Your task to perform on an android device: turn on javascript in the chrome app Image 0: 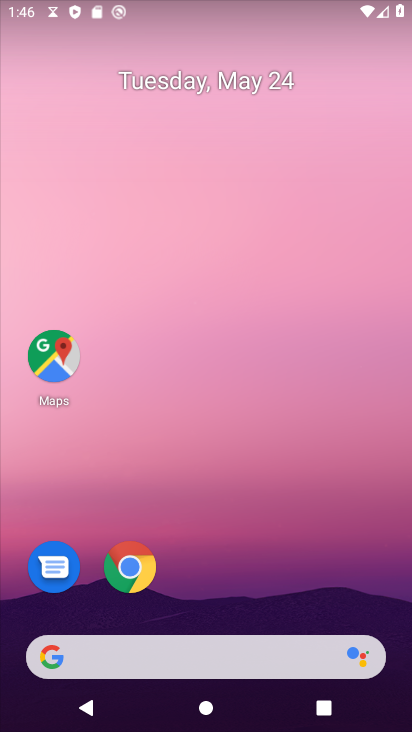
Step 0: drag from (223, 597) to (278, 93)
Your task to perform on an android device: turn on javascript in the chrome app Image 1: 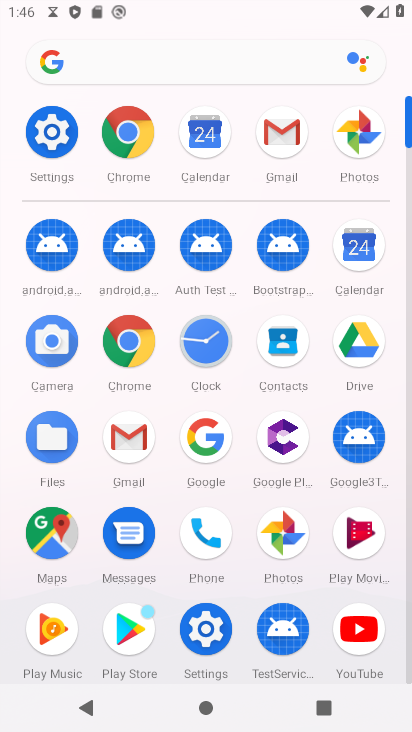
Step 1: click (122, 350)
Your task to perform on an android device: turn on javascript in the chrome app Image 2: 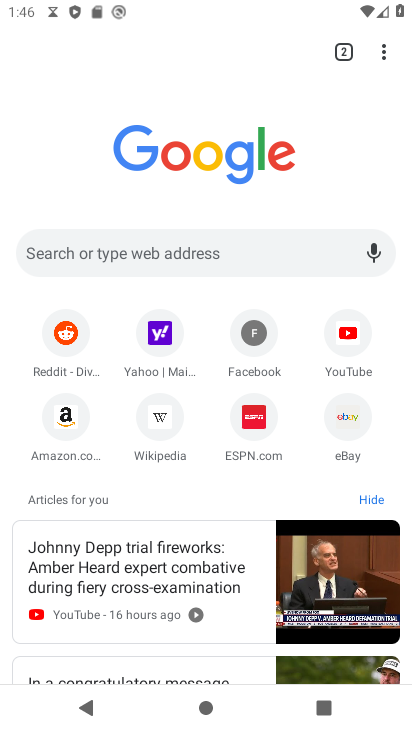
Step 2: click (379, 55)
Your task to perform on an android device: turn on javascript in the chrome app Image 3: 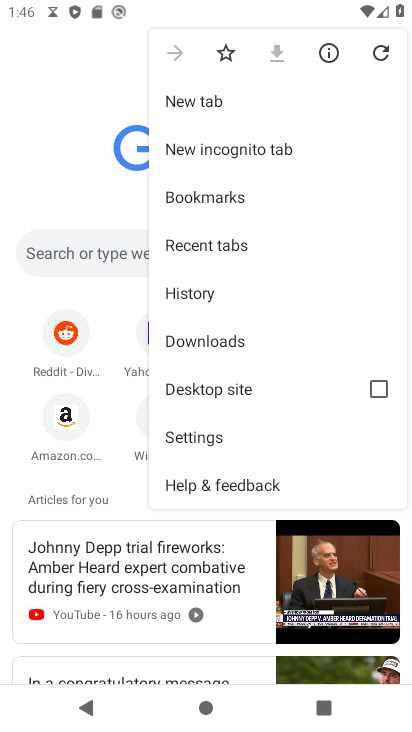
Step 3: click (185, 446)
Your task to perform on an android device: turn on javascript in the chrome app Image 4: 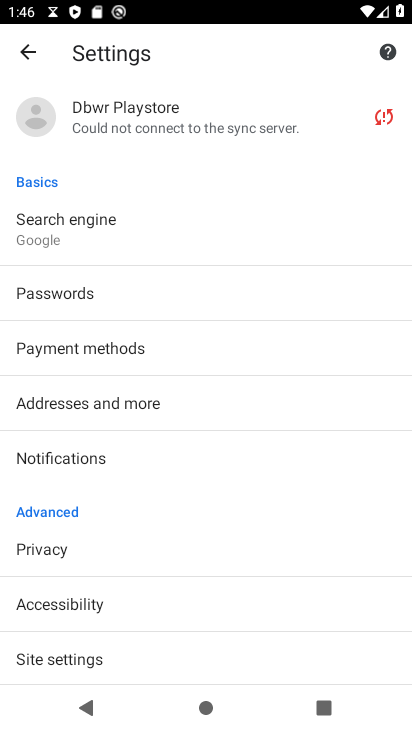
Step 4: drag from (76, 599) to (129, 373)
Your task to perform on an android device: turn on javascript in the chrome app Image 5: 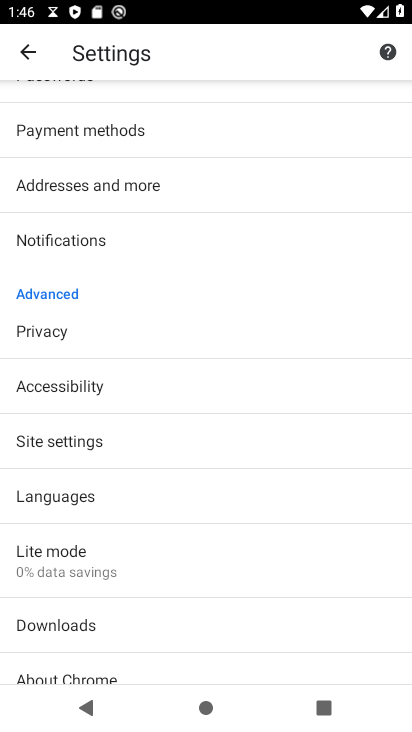
Step 5: click (73, 441)
Your task to perform on an android device: turn on javascript in the chrome app Image 6: 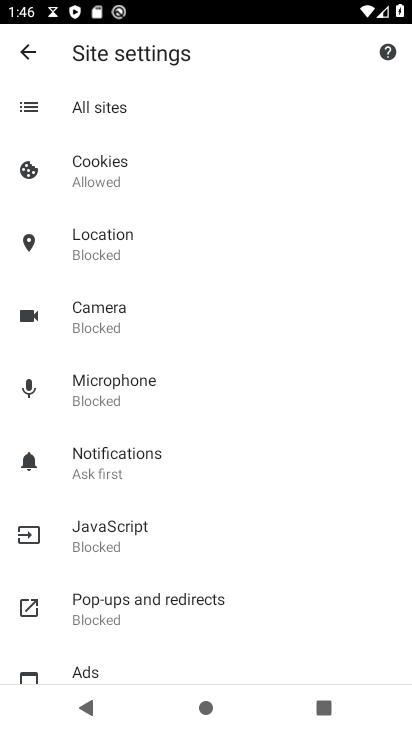
Step 6: click (121, 539)
Your task to perform on an android device: turn on javascript in the chrome app Image 7: 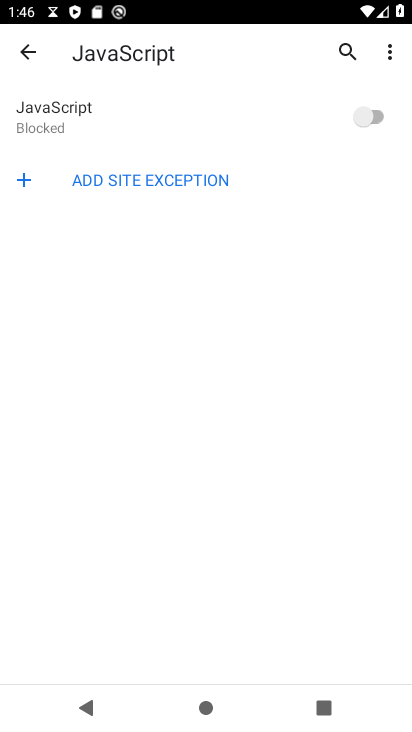
Step 7: click (390, 112)
Your task to perform on an android device: turn on javascript in the chrome app Image 8: 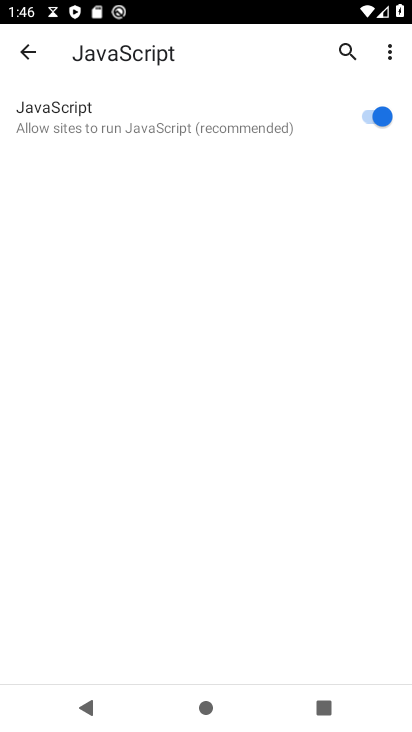
Step 8: task complete